Your task to perform on an android device: open app "McDonald's" Image 0: 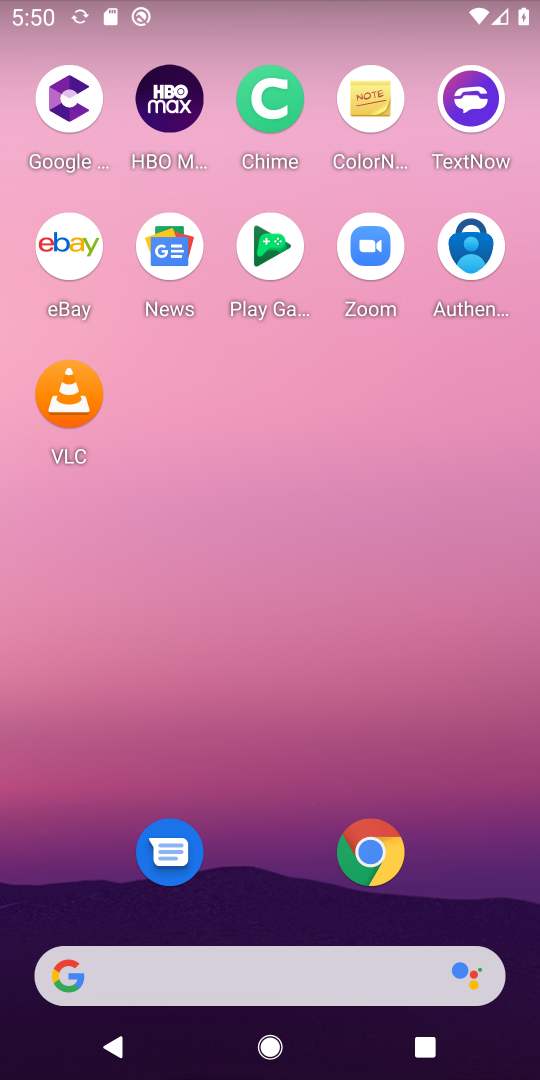
Step 0: press home button
Your task to perform on an android device: open app "McDonald's" Image 1: 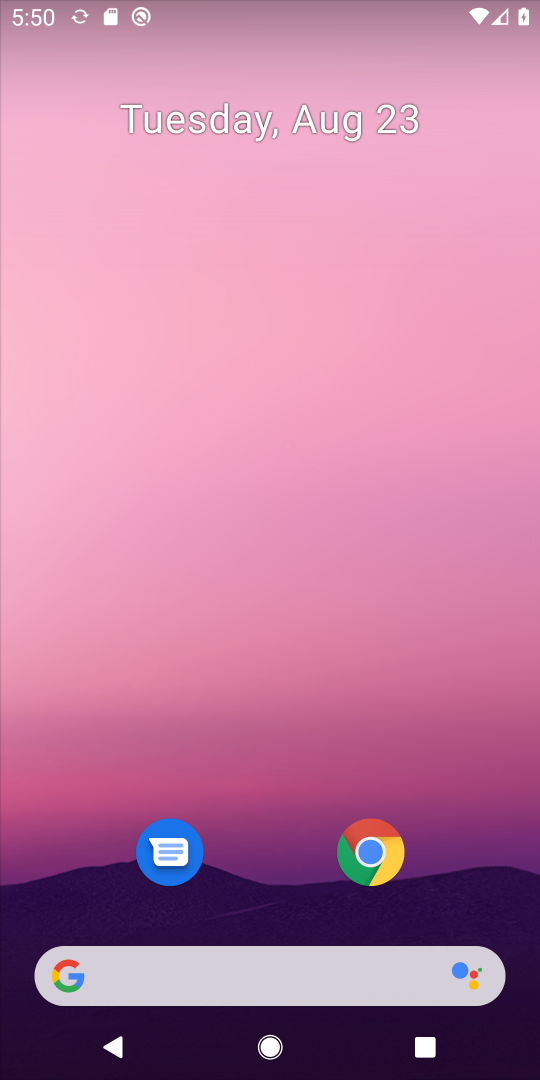
Step 1: drag from (234, 975) to (378, 179)
Your task to perform on an android device: open app "McDonald's" Image 2: 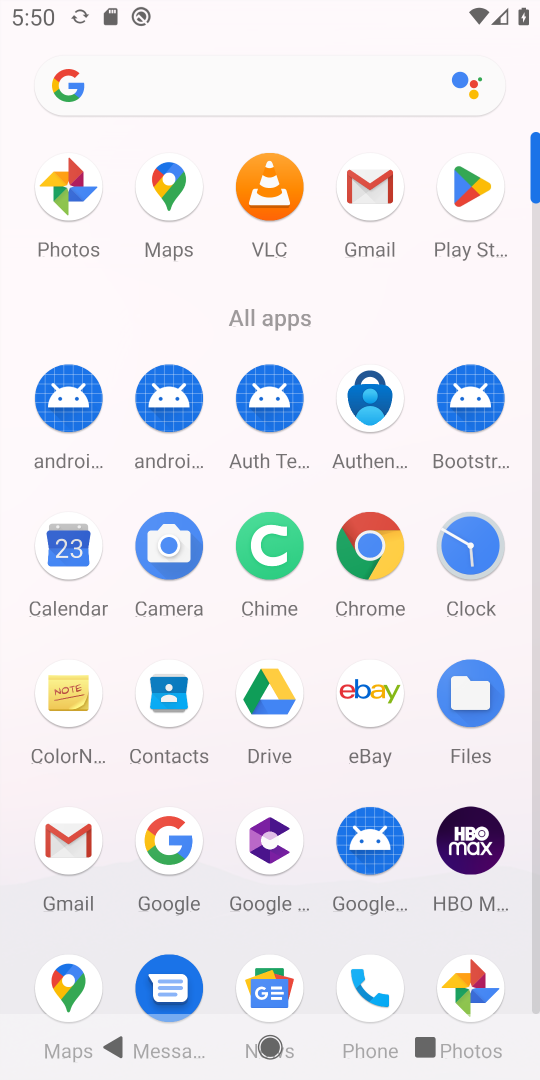
Step 2: click (469, 191)
Your task to perform on an android device: open app "McDonald's" Image 3: 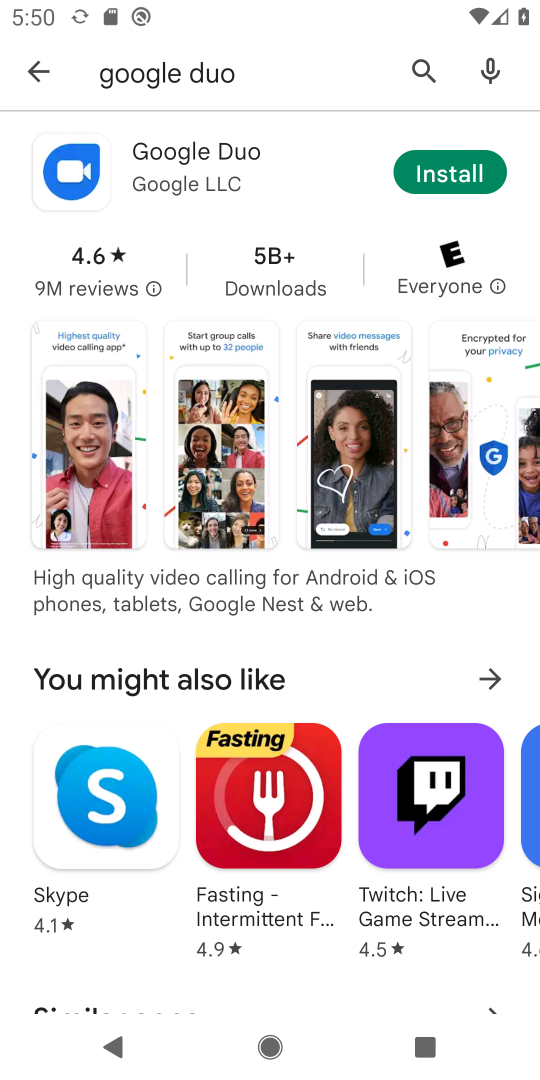
Step 3: press back button
Your task to perform on an android device: open app "McDonald's" Image 4: 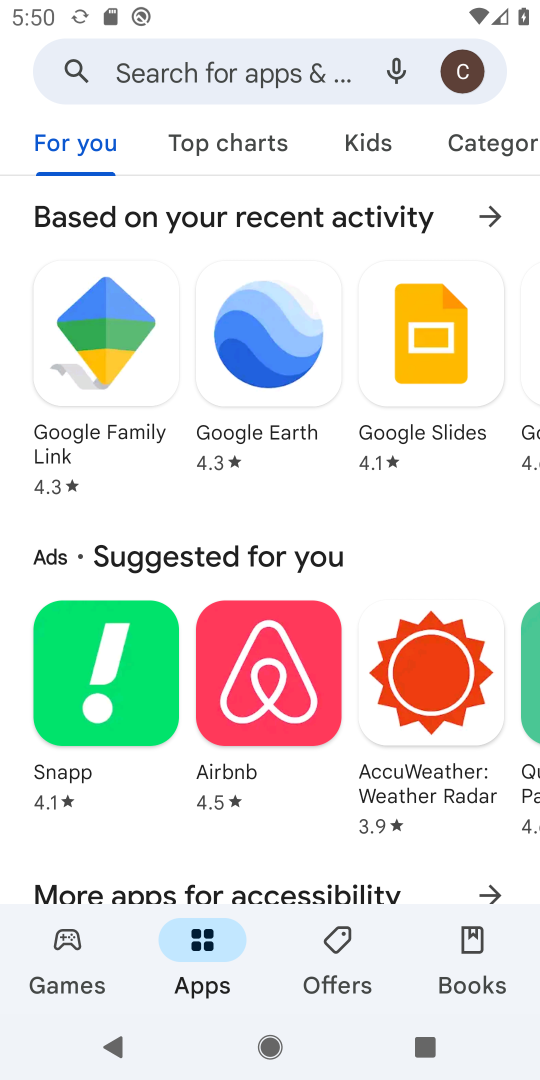
Step 4: click (251, 84)
Your task to perform on an android device: open app "McDonald's" Image 5: 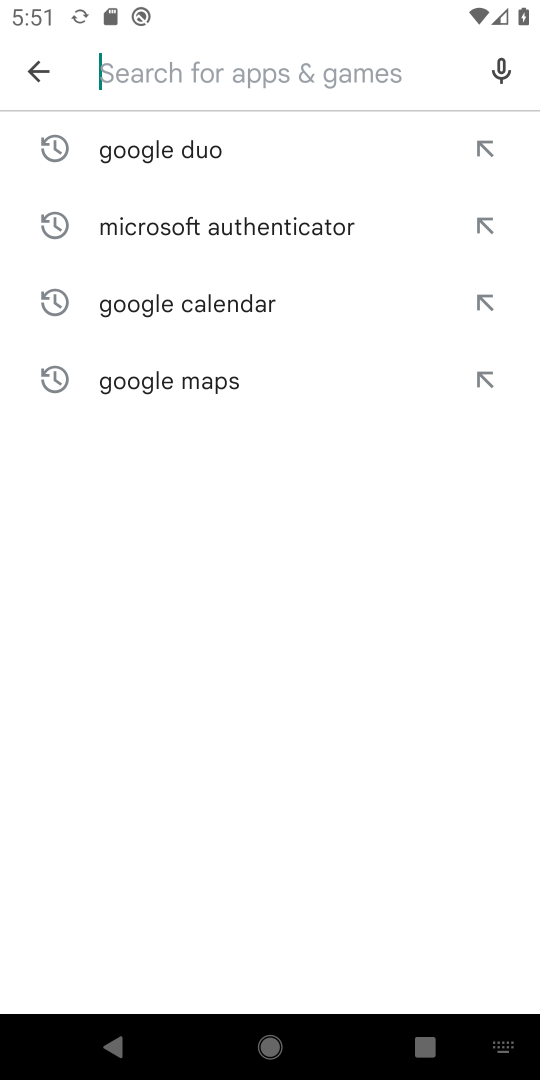
Step 5: type "McDonald's"
Your task to perform on an android device: open app "McDonald's" Image 6: 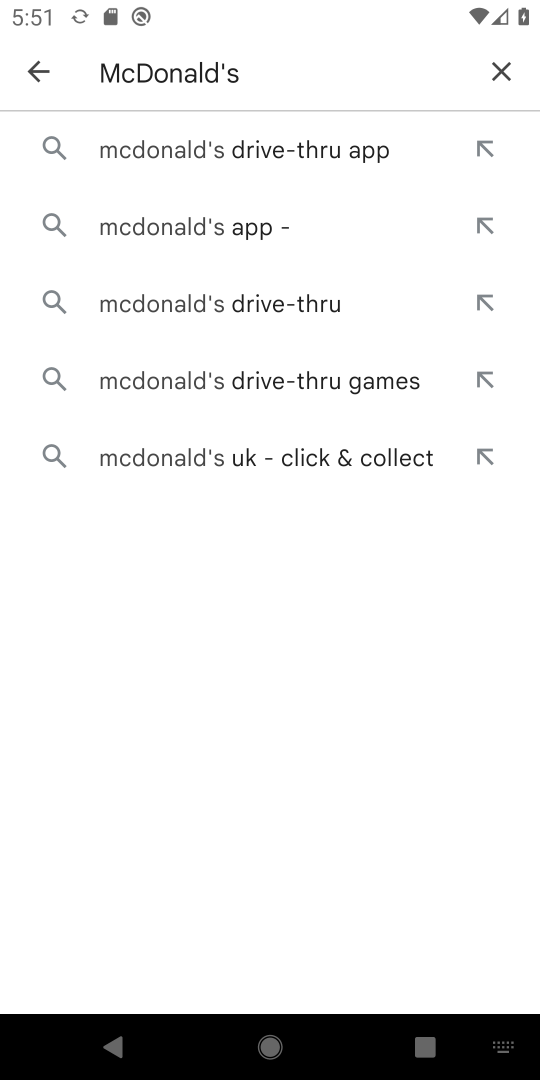
Step 6: click (182, 237)
Your task to perform on an android device: open app "McDonald's" Image 7: 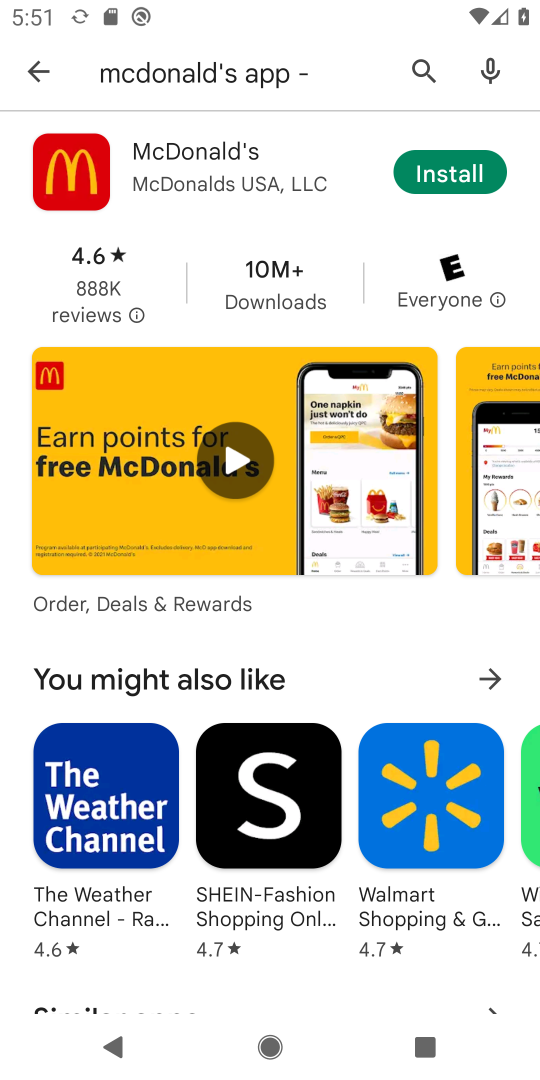
Step 7: task complete